Your task to perform on an android device: Search for pizza restaurants on Maps Image 0: 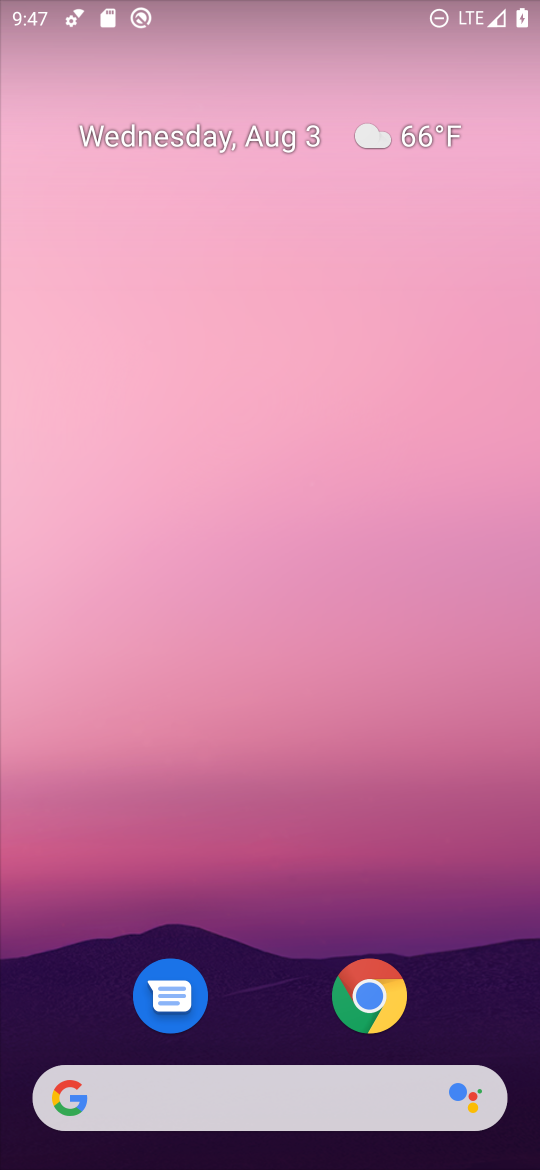
Step 0: drag from (273, 990) to (281, 88)
Your task to perform on an android device: Search for pizza restaurants on Maps Image 1: 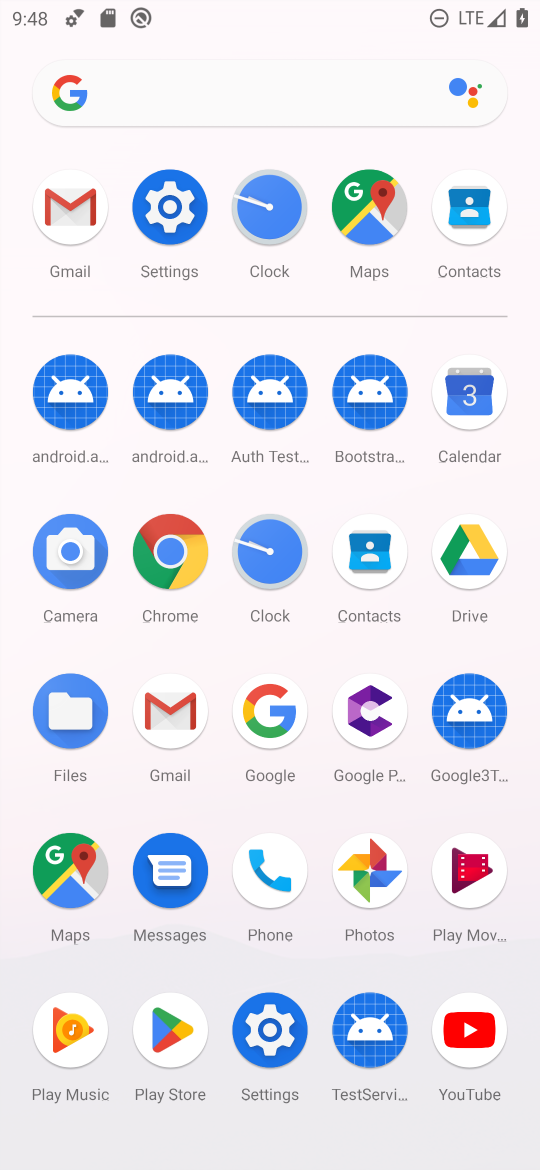
Step 1: click (366, 200)
Your task to perform on an android device: Search for pizza restaurants on Maps Image 2: 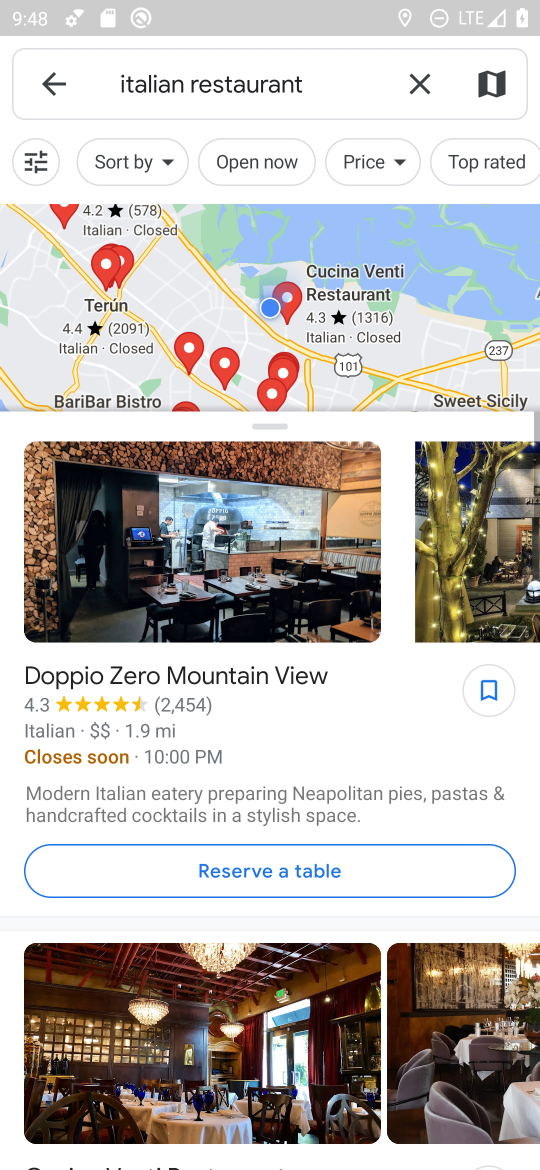
Step 2: click (417, 78)
Your task to perform on an android device: Search for pizza restaurants on Maps Image 3: 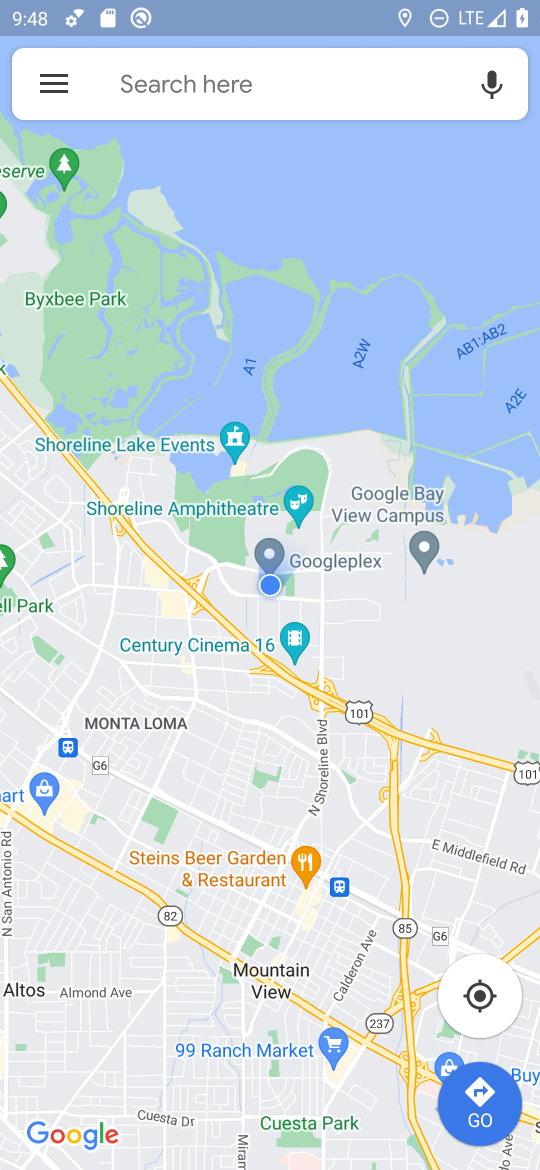
Step 3: click (368, 95)
Your task to perform on an android device: Search for pizza restaurants on Maps Image 4: 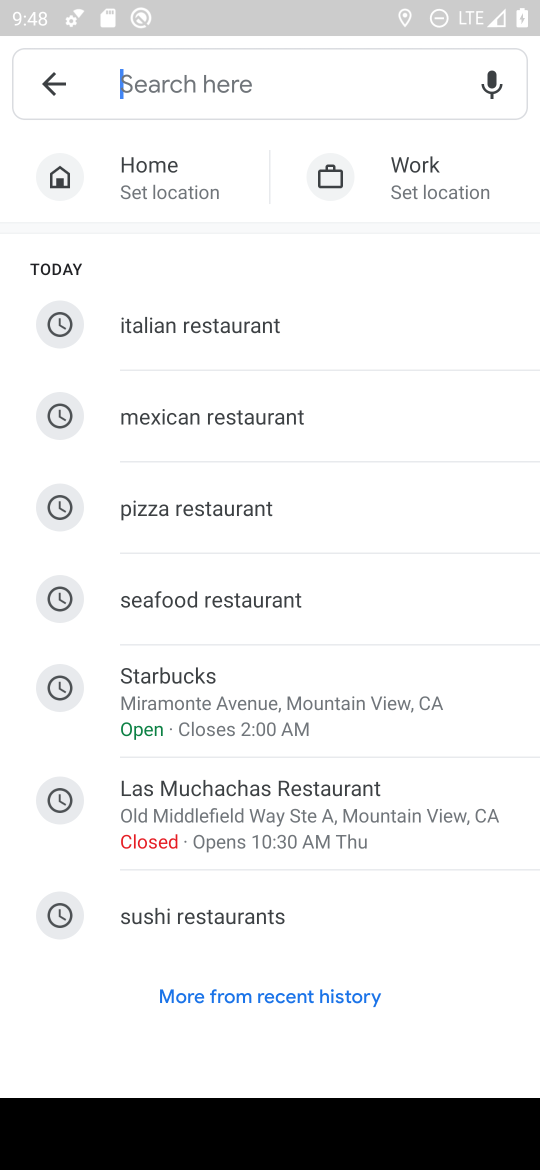
Step 4: click (269, 505)
Your task to perform on an android device: Search for pizza restaurants on Maps Image 5: 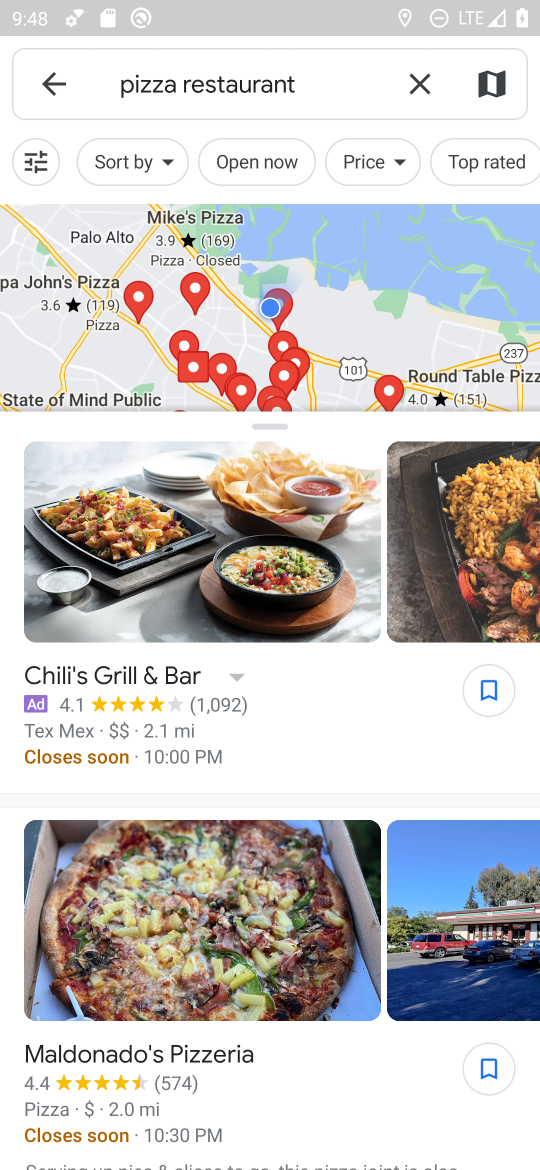
Step 5: task complete